Your task to perform on an android device: turn on location history Image 0: 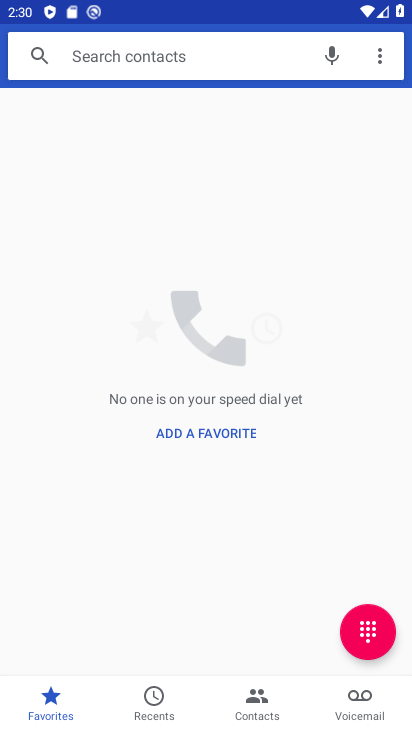
Step 0: press home button
Your task to perform on an android device: turn on location history Image 1: 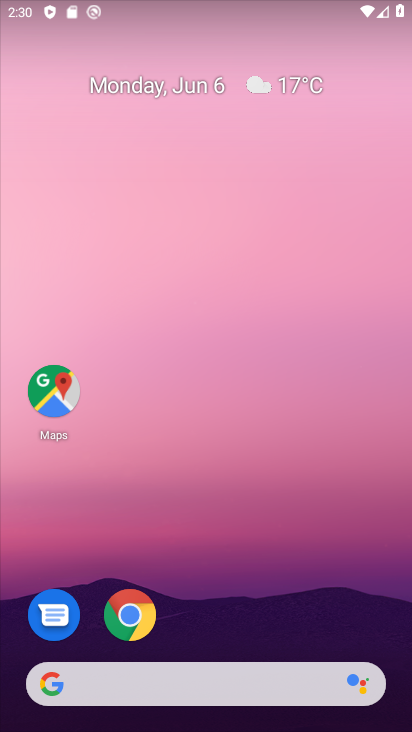
Step 1: click (63, 402)
Your task to perform on an android device: turn on location history Image 2: 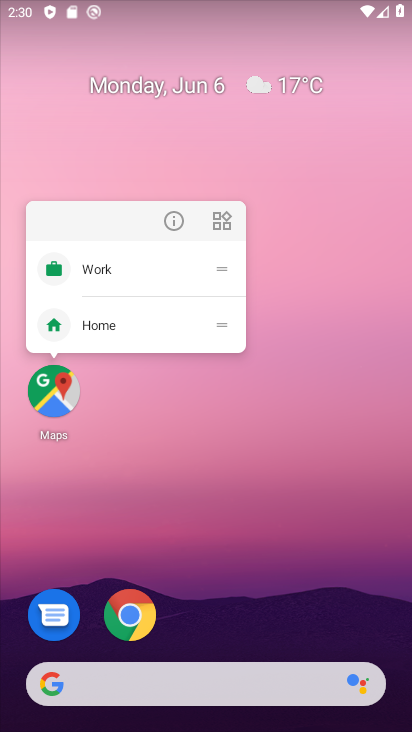
Step 2: click (63, 402)
Your task to perform on an android device: turn on location history Image 3: 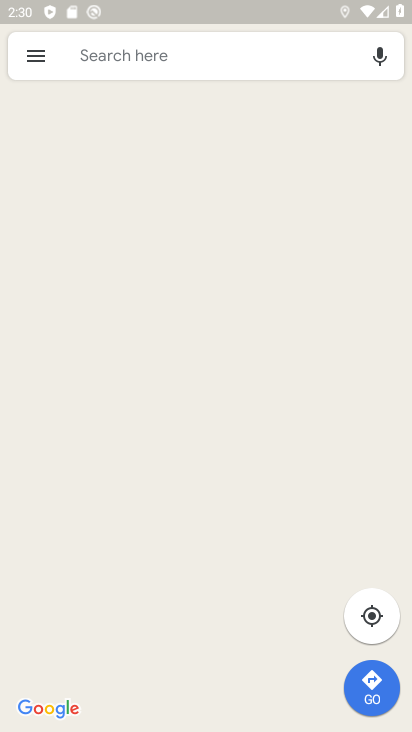
Step 3: click (35, 60)
Your task to perform on an android device: turn on location history Image 4: 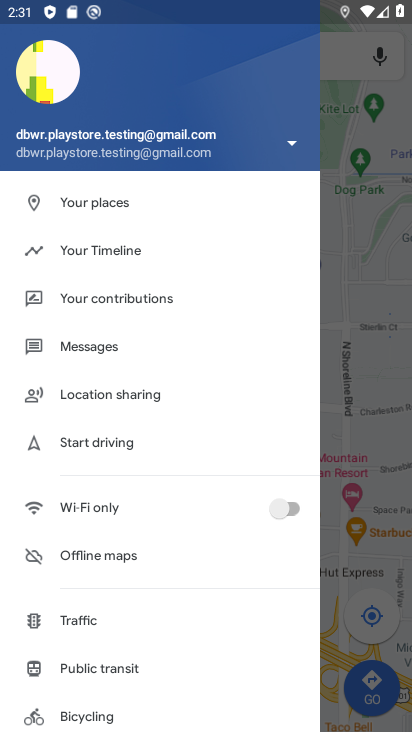
Step 4: click (148, 246)
Your task to perform on an android device: turn on location history Image 5: 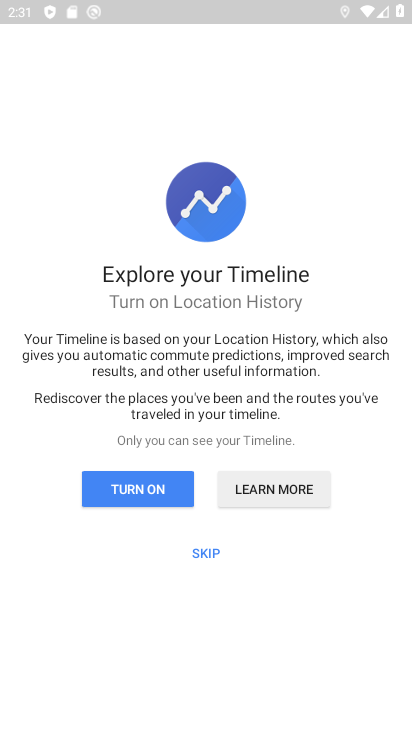
Step 5: click (154, 495)
Your task to perform on an android device: turn on location history Image 6: 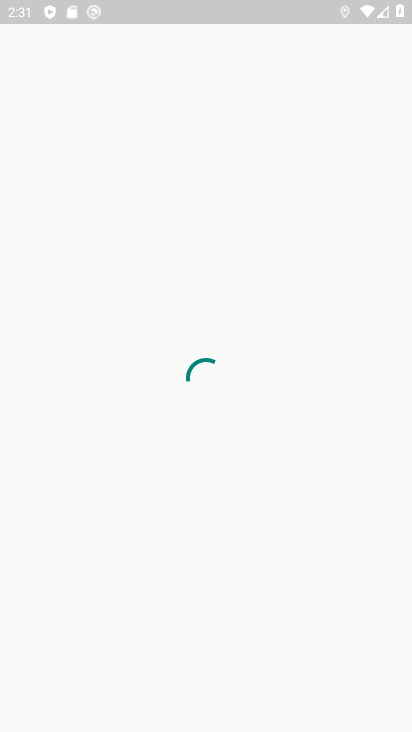
Step 6: task complete